Your task to perform on an android device: Go to network settings Image 0: 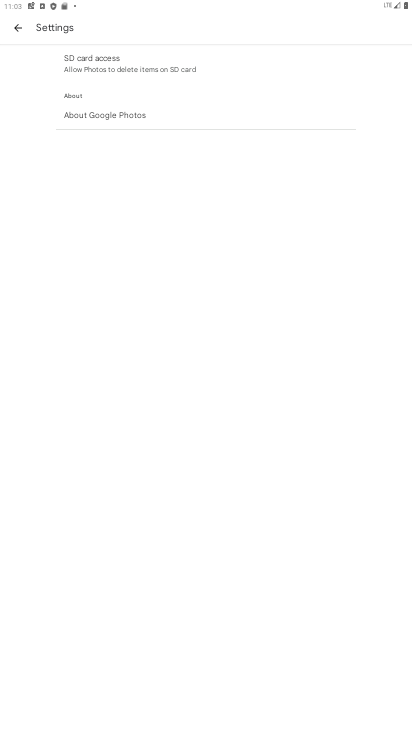
Step 0: press home button
Your task to perform on an android device: Go to network settings Image 1: 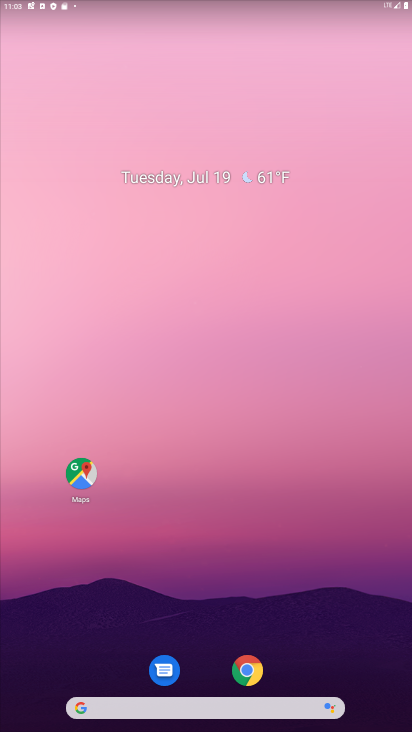
Step 1: drag from (205, 696) to (264, 53)
Your task to perform on an android device: Go to network settings Image 2: 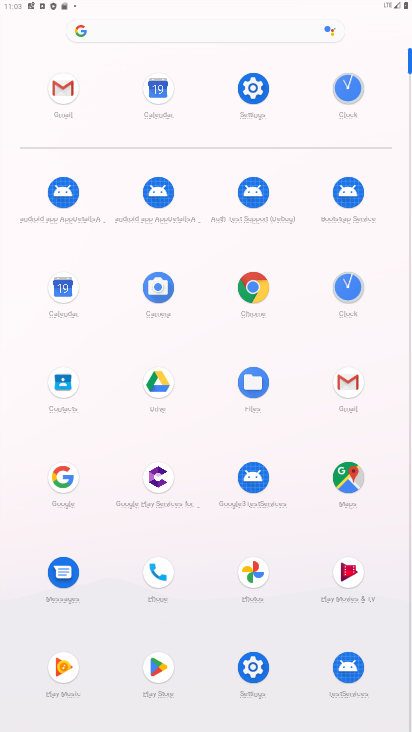
Step 2: click (255, 87)
Your task to perform on an android device: Go to network settings Image 3: 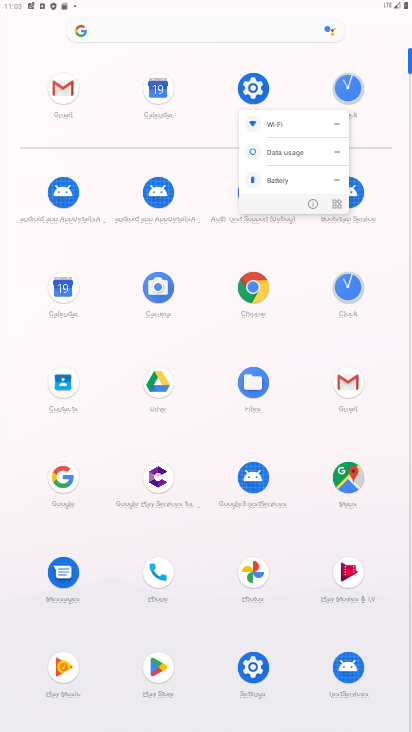
Step 3: click (259, 87)
Your task to perform on an android device: Go to network settings Image 4: 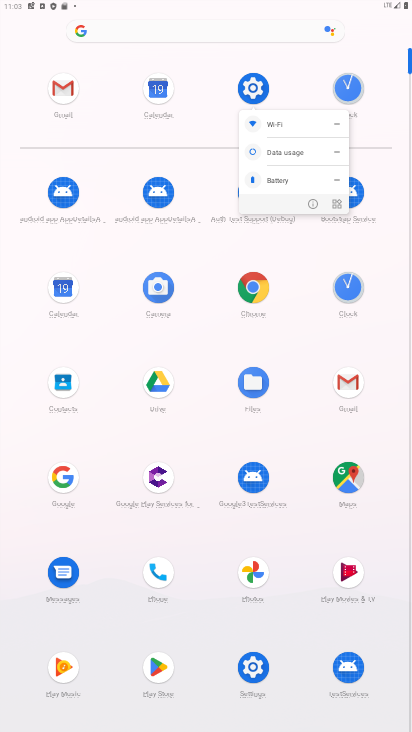
Step 4: click (259, 87)
Your task to perform on an android device: Go to network settings Image 5: 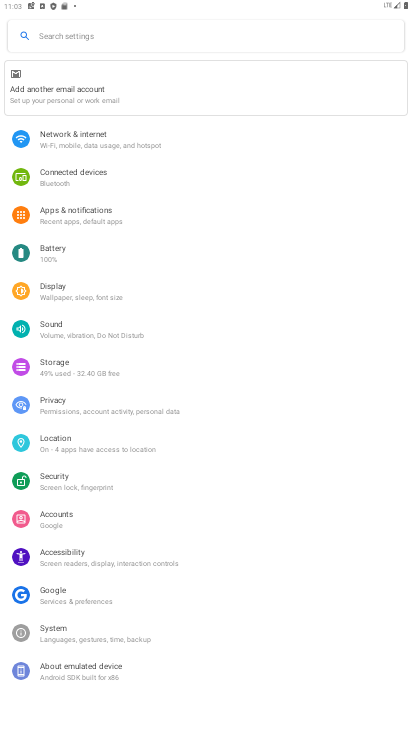
Step 5: click (142, 130)
Your task to perform on an android device: Go to network settings Image 6: 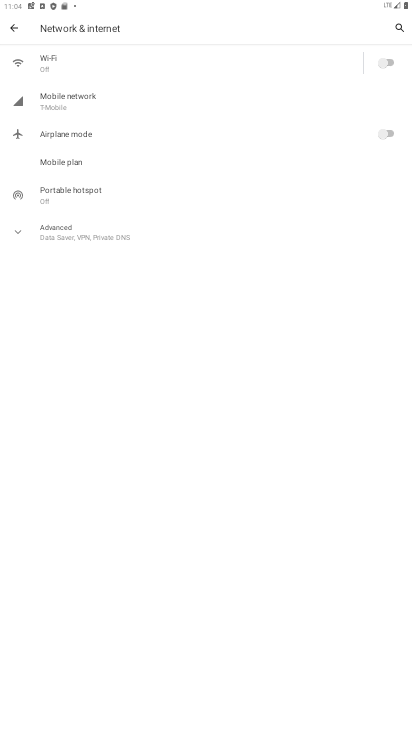
Step 6: task complete